Your task to perform on an android device: turn on the 12-hour format for clock Image 0: 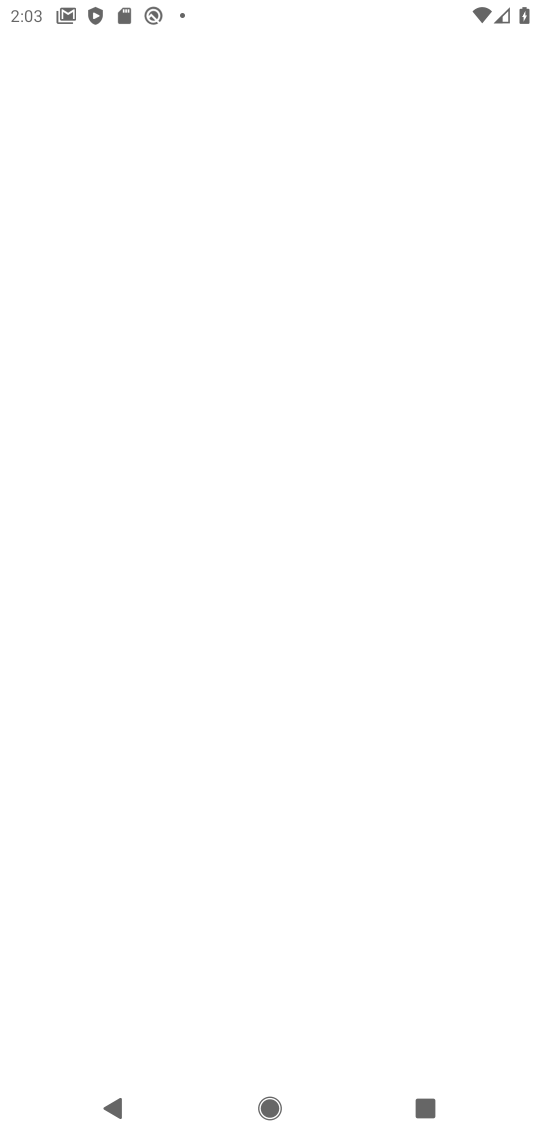
Step 0: press home button
Your task to perform on an android device: turn on the 12-hour format for clock Image 1: 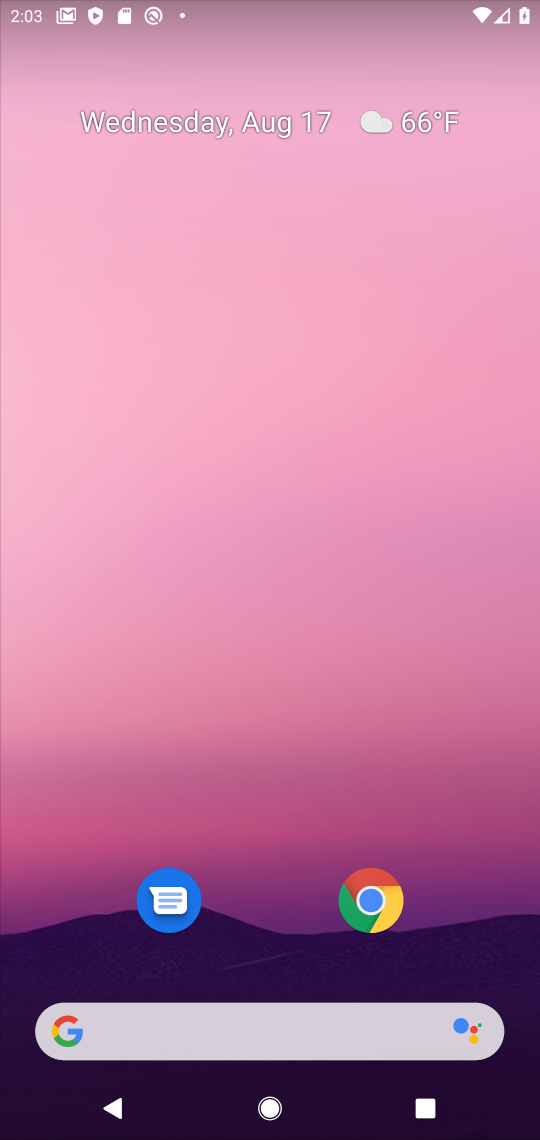
Step 1: drag from (271, 1018) to (392, 214)
Your task to perform on an android device: turn on the 12-hour format for clock Image 2: 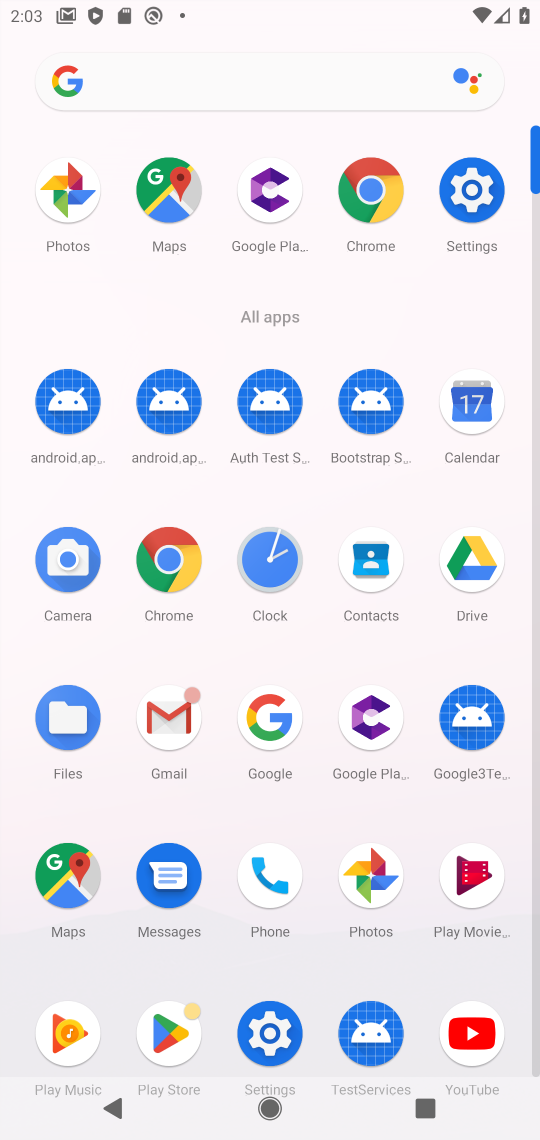
Step 2: click (276, 570)
Your task to perform on an android device: turn on the 12-hour format for clock Image 3: 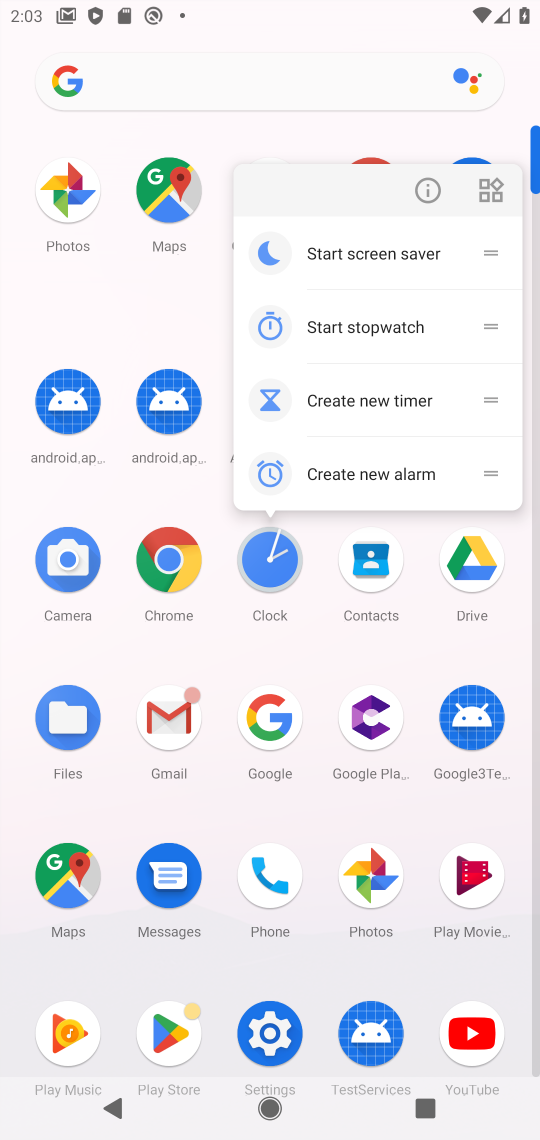
Step 3: click (267, 552)
Your task to perform on an android device: turn on the 12-hour format for clock Image 4: 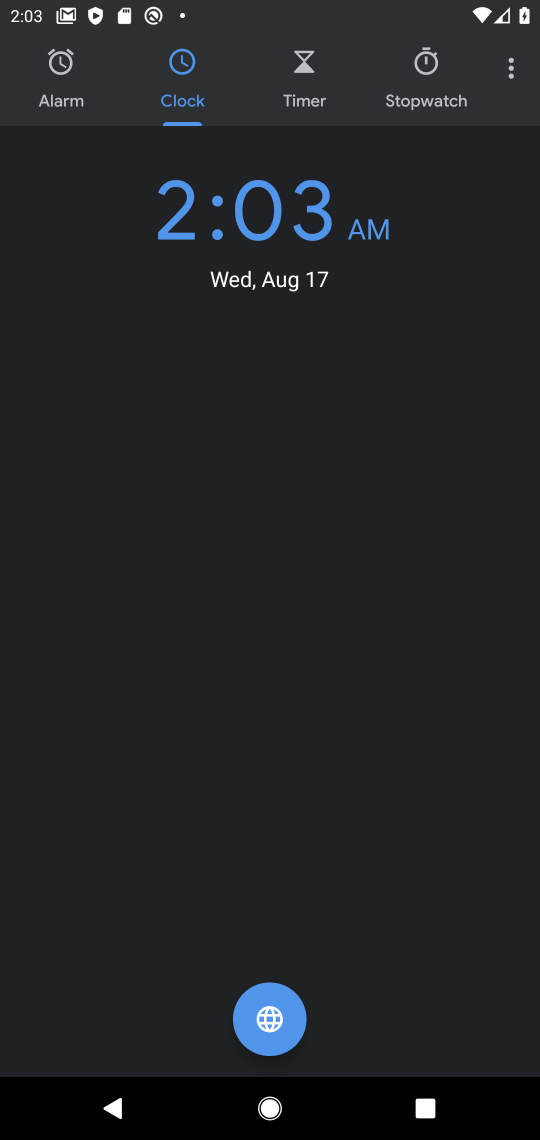
Step 4: click (506, 72)
Your task to perform on an android device: turn on the 12-hour format for clock Image 5: 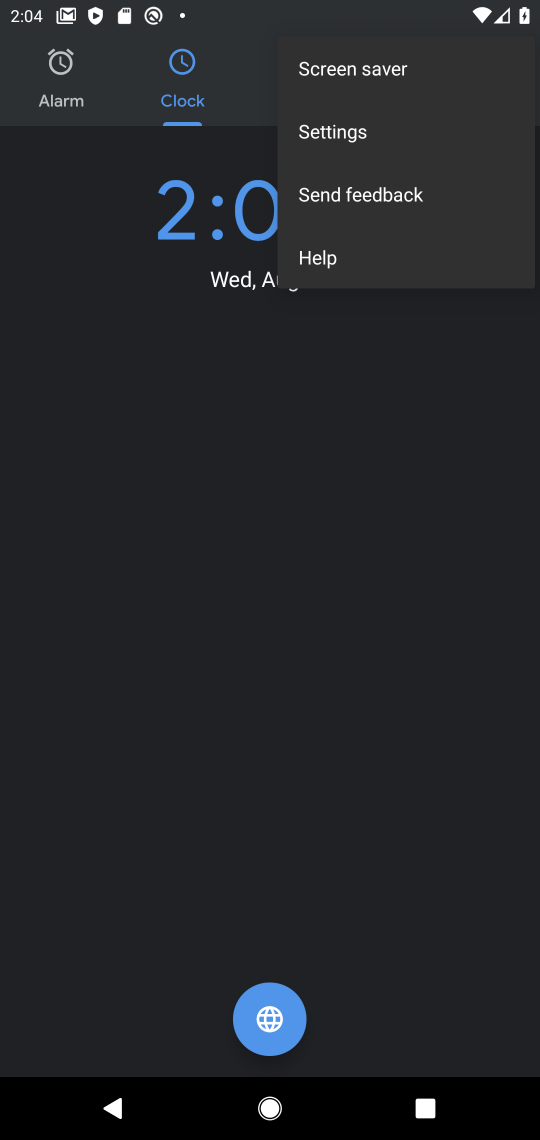
Step 5: click (353, 127)
Your task to perform on an android device: turn on the 12-hour format for clock Image 6: 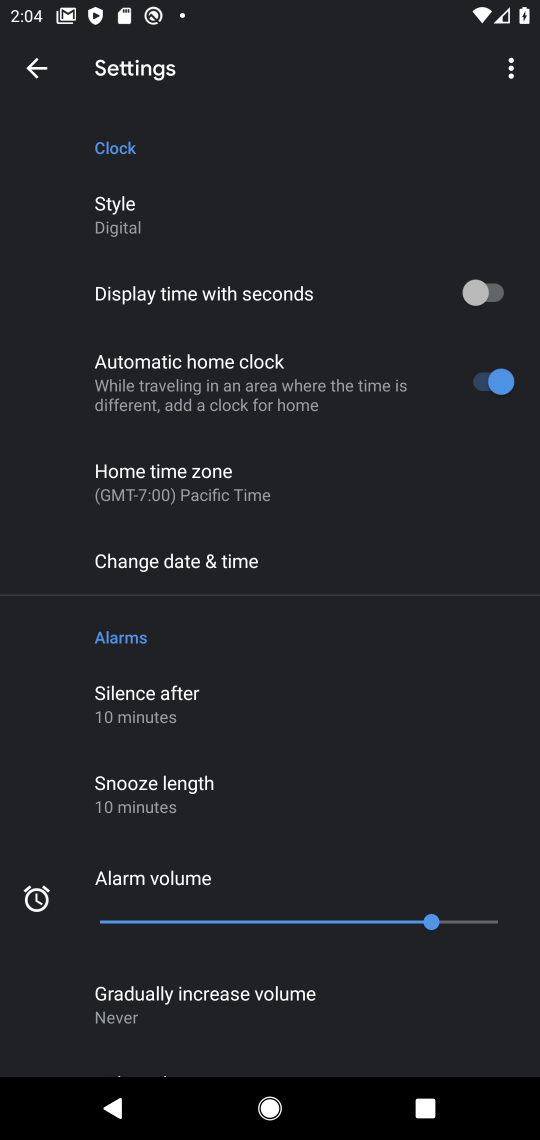
Step 6: click (203, 553)
Your task to perform on an android device: turn on the 12-hour format for clock Image 7: 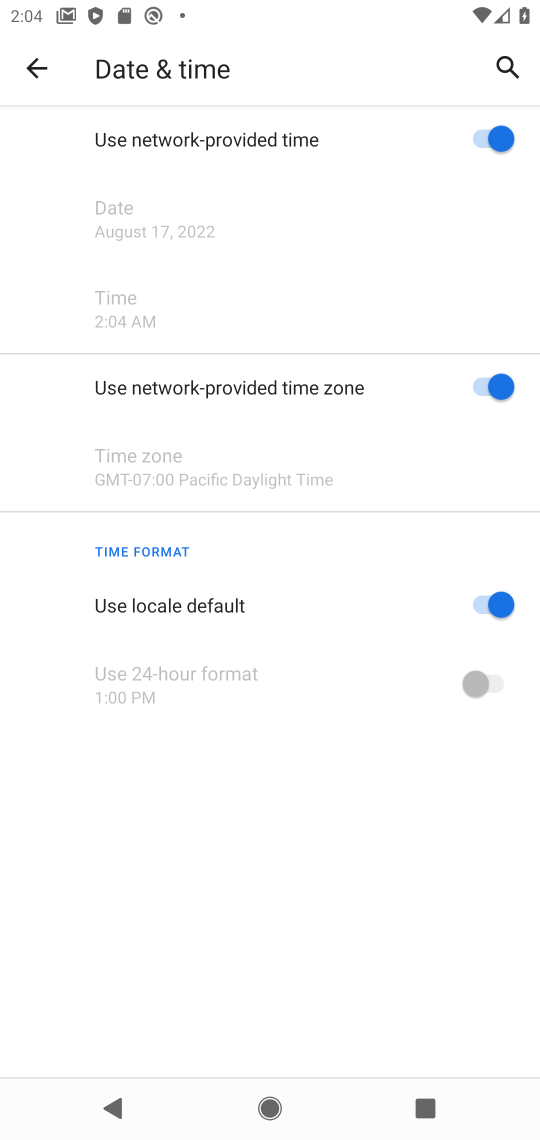
Step 7: task complete